Your task to perform on an android device: empty trash in google photos Image 0: 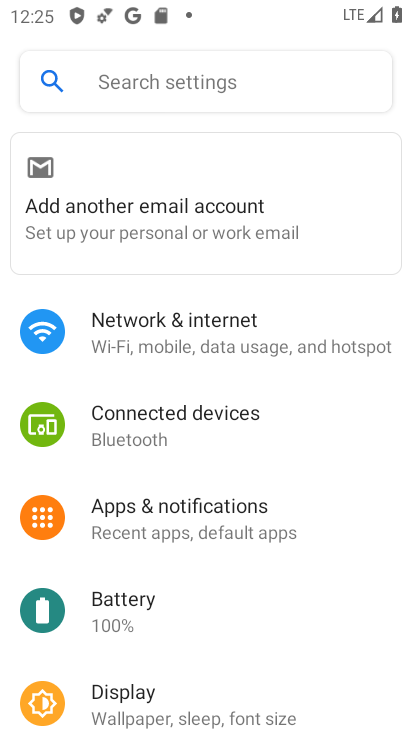
Step 0: press home button
Your task to perform on an android device: empty trash in google photos Image 1: 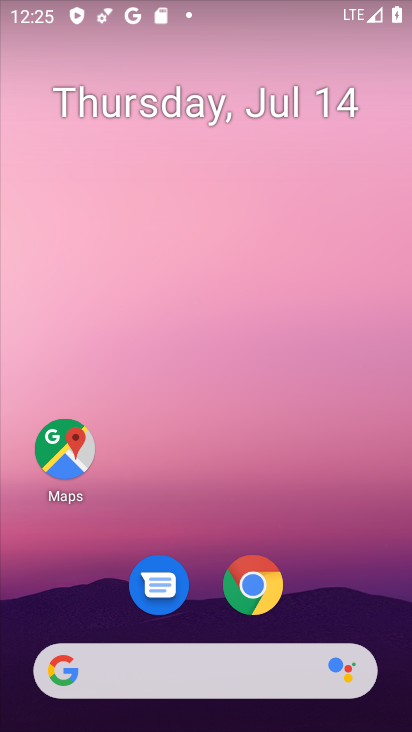
Step 1: drag from (307, 563) to (260, 47)
Your task to perform on an android device: empty trash in google photos Image 2: 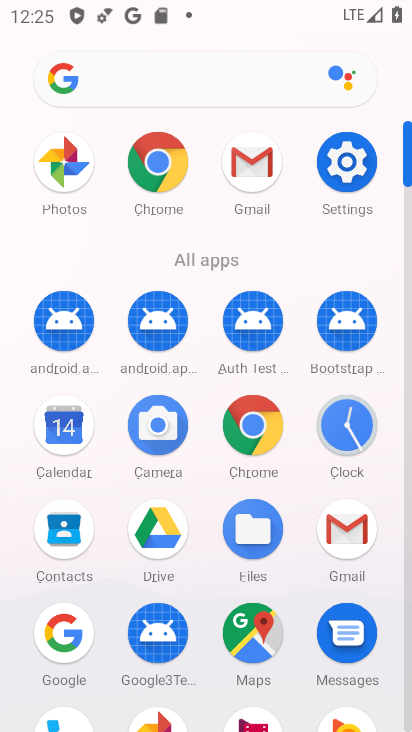
Step 2: click (68, 164)
Your task to perform on an android device: empty trash in google photos Image 3: 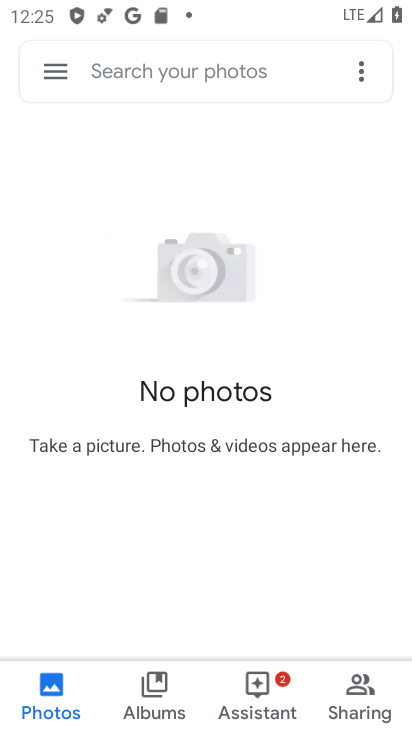
Step 3: click (55, 66)
Your task to perform on an android device: empty trash in google photos Image 4: 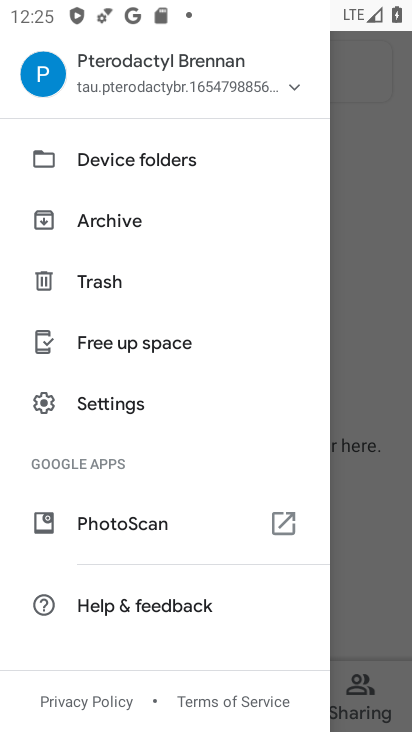
Step 4: click (82, 280)
Your task to perform on an android device: empty trash in google photos Image 5: 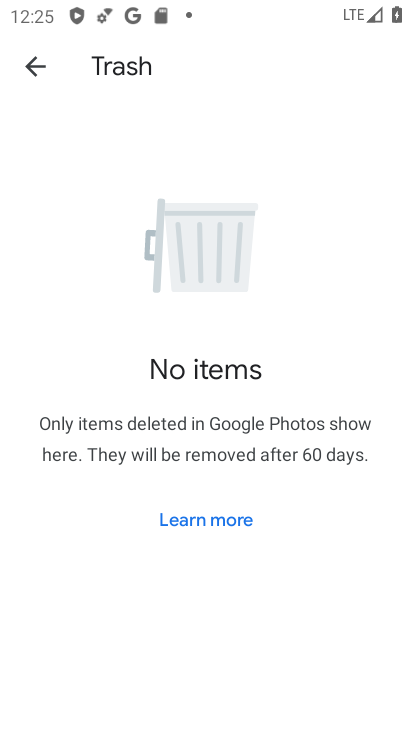
Step 5: task complete